Your task to perform on an android device: Is it going to rain tomorrow? Image 0: 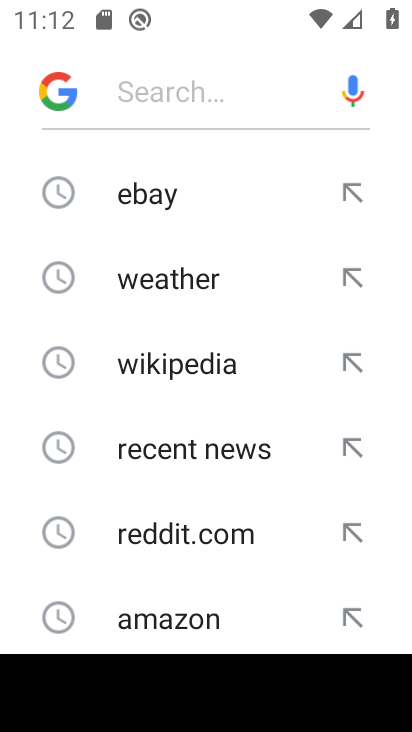
Step 0: press home button
Your task to perform on an android device: Is it going to rain tomorrow? Image 1: 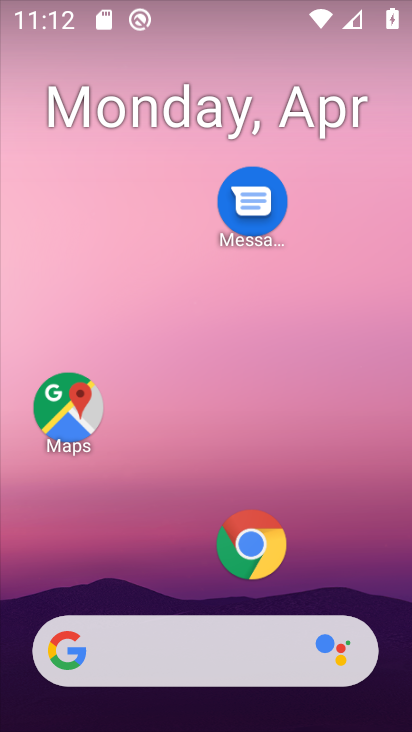
Step 1: drag from (8, 283) to (376, 303)
Your task to perform on an android device: Is it going to rain tomorrow? Image 2: 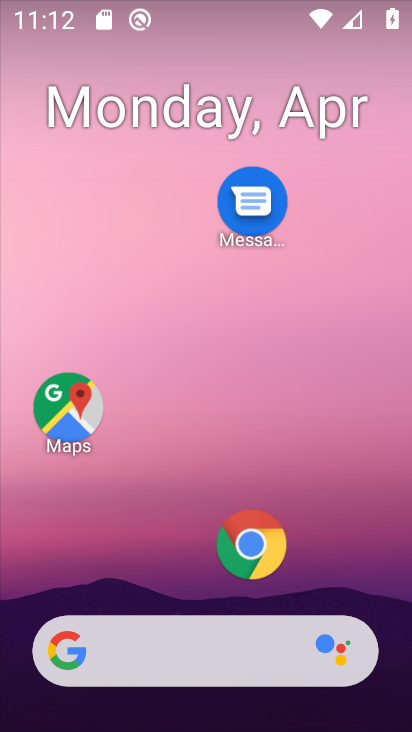
Step 2: drag from (18, 265) to (386, 306)
Your task to perform on an android device: Is it going to rain tomorrow? Image 3: 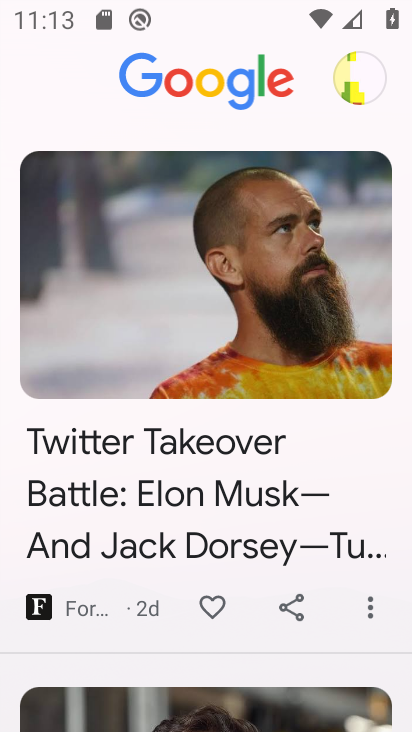
Step 3: drag from (381, 418) to (0, 355)
Your task to perform on an android device: Is it going to rain tomorrow? Image 4: 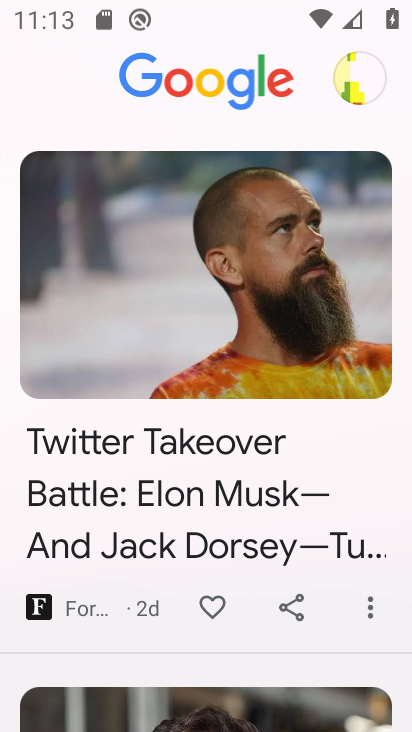
Step 4: press back button
Your task to perform on an android device: Is it going to rain tomorrow? Image 5: 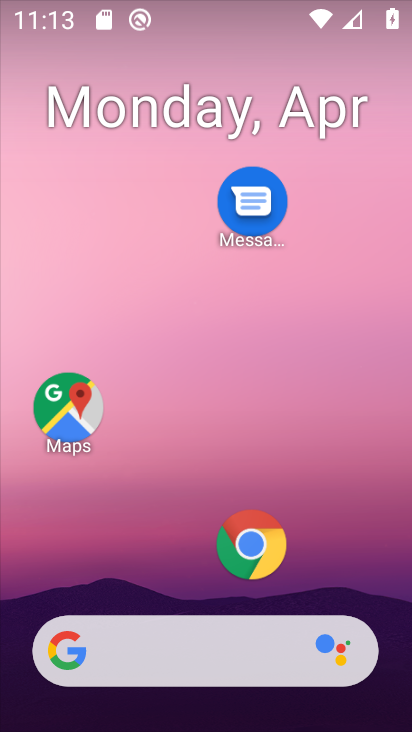
Step 5: click (255, 544)
Your task to perform on an android device: Is it going to rain tomorrow? Image 6: 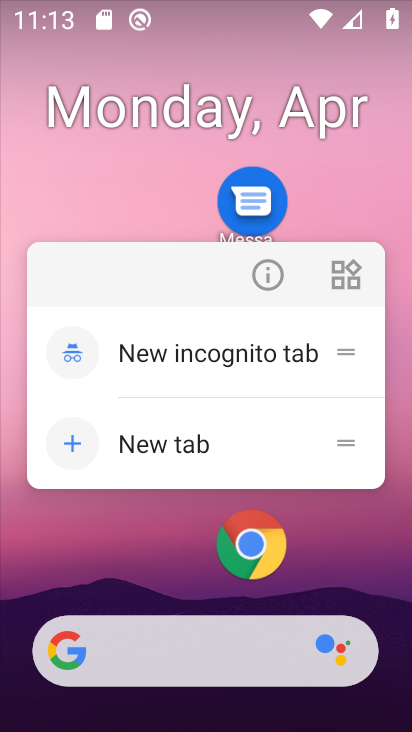
Step 6: click (247, 541)
Your task to perform on an android device: Is it going to rain tomorrow? Image 7: 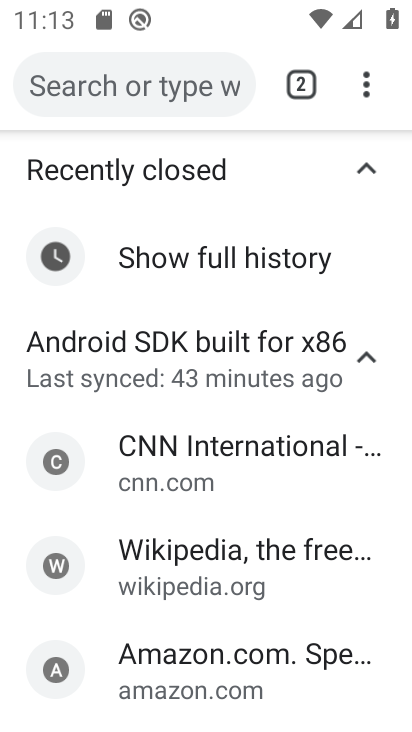
Step 7: click (297, 77)
Your task to perform on an android device: Is it going to rain tomorrow? Image 8: 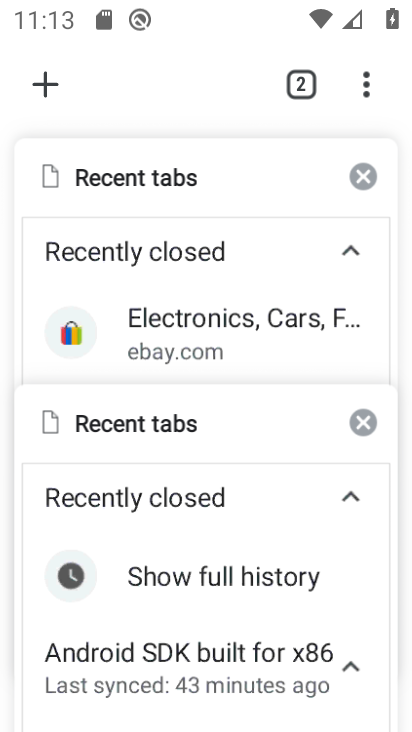
Step 8: click (363, 166)
Your task to perform on an android device: Is it going to rain tomorrow? Image 9: 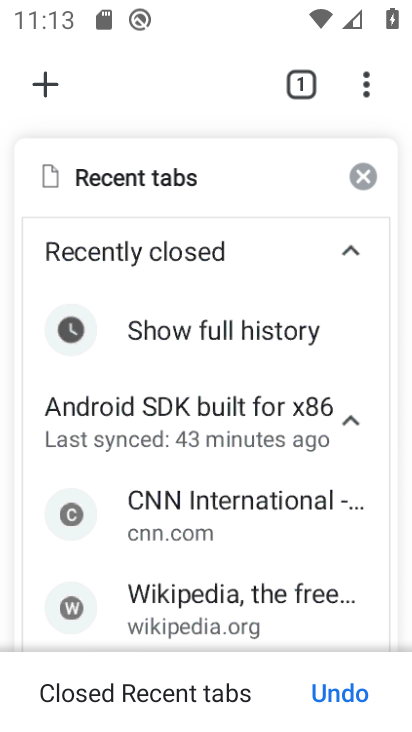
Step 9: click (362, 174)
Your task to perform on an android device: Is it going to rain tomorrow? Image 10: 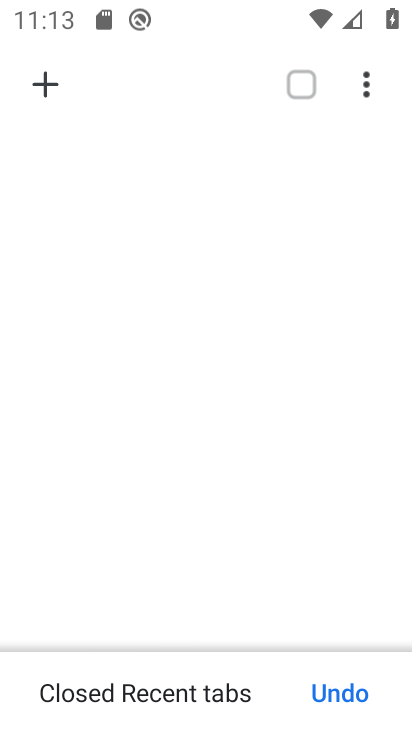
Step 10: click (50, 84)
Your task to perform on an android device: Is it going to rain tomorrow? Image 11: 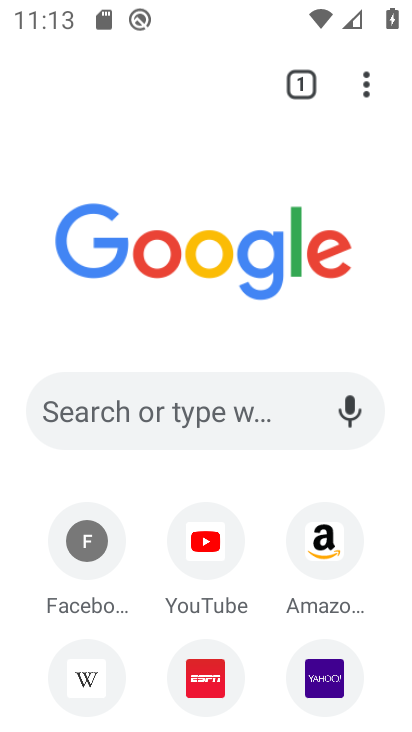
Step 11: click (164, 416)
Your task to perform on an android device: Is it going to rain tomorrow? Image 12: 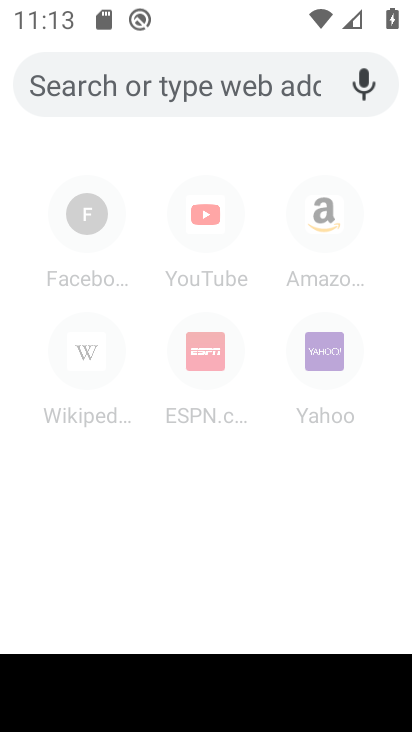
Step 12: type "weather"
Your task to perform on an android device: Is it going to rain tomorrow? Image 13: 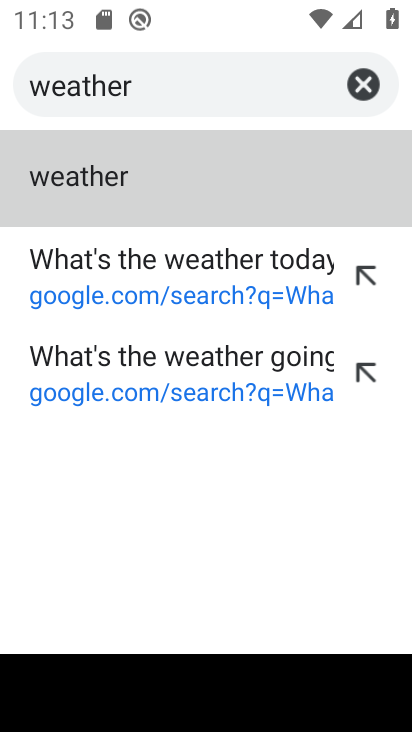
Step 13: click (143, 196)
Your task to perform on an android device: Is it going to rain tomorrow? Image 14: 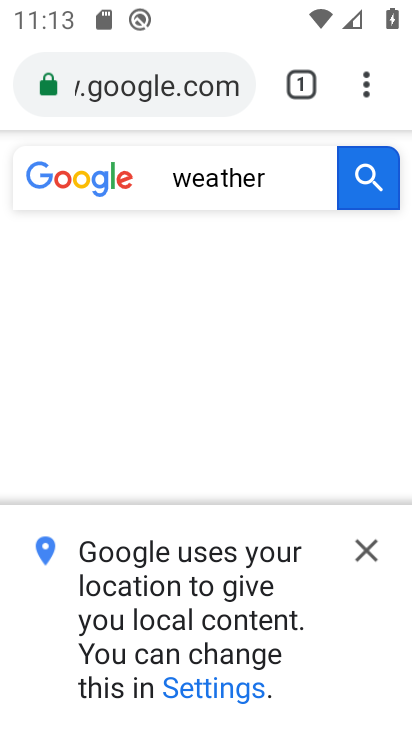
Step 14: click (365, 548)
Your task to perform on an android device: Is it going to rain tomorrow? Image 15: 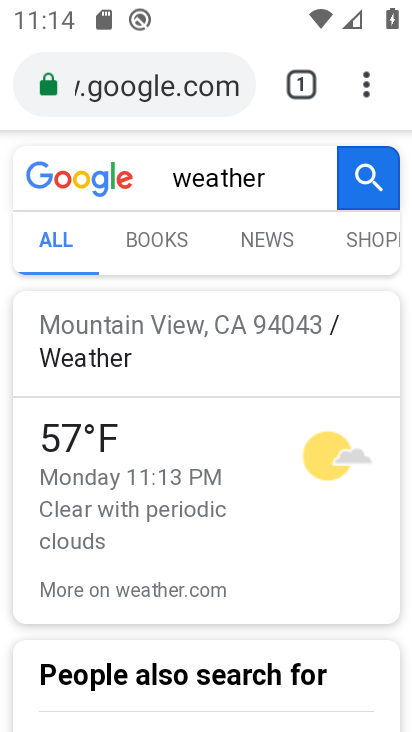
Step 15: drag from (195, 582) to (182, 419)
Your task to perform on an android device: Is it going to rain tomorrow? Image 16: 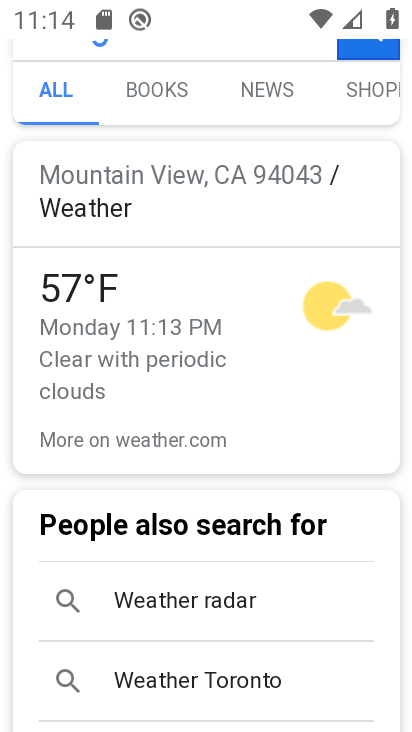
Step 16: click (193, 328)
Your task to perform on an android device: Is it going to rain tomorrow? Image 17: 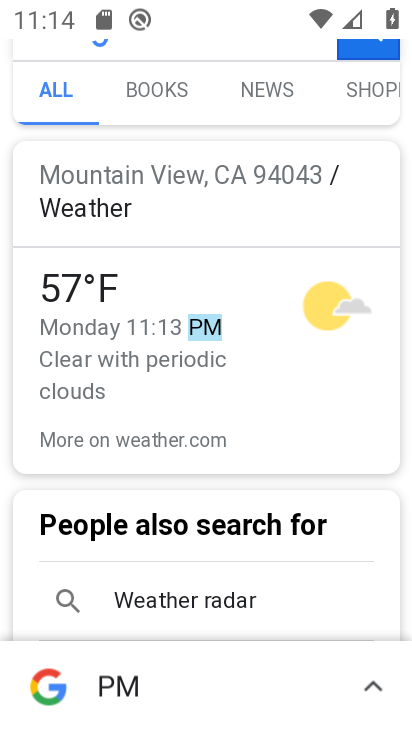
Step 17: click (250, 299)
Your task to perform on an android device: Is it going to rain tomorrow? Image 18: 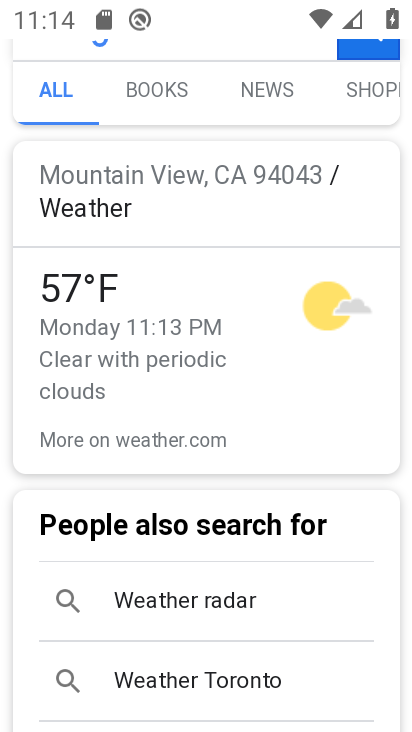
Step 18: click (308, 312)
Your task to perform on an android device: Is it going to rain tomorrow? Image 19: 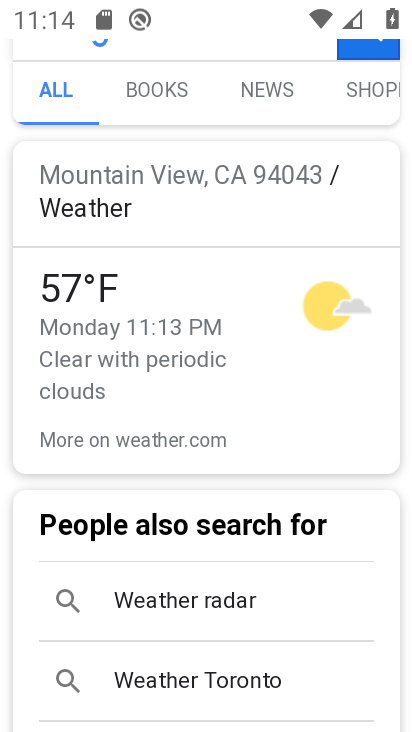
Step 19: click (146, 283)
Your task to perform on an android device: Is it going to rain tomorrow? Image 20: 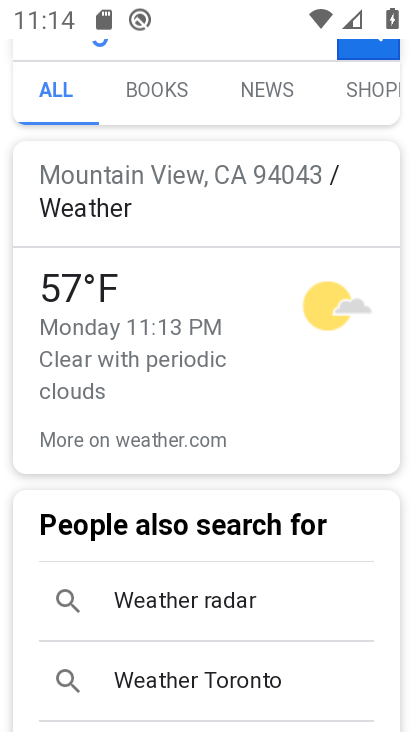
Step 20: click (152, 287)
Your task to perform on an android device: Is it going to rain tomorrow? Image 21: 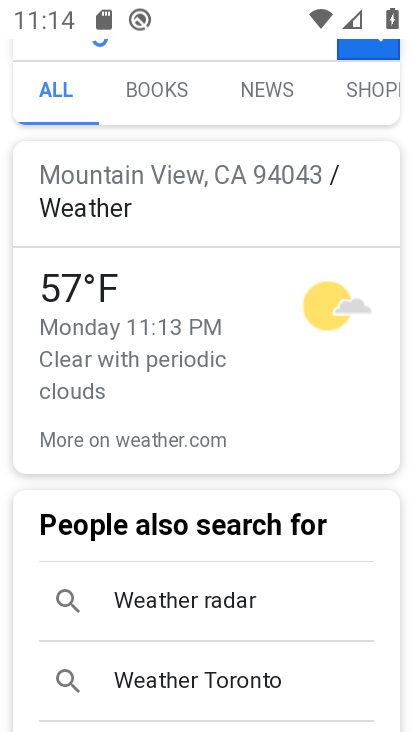
Step 21: task complete